Your task to perform on an android device: turn on priority inbox in the gmail app Image 0: 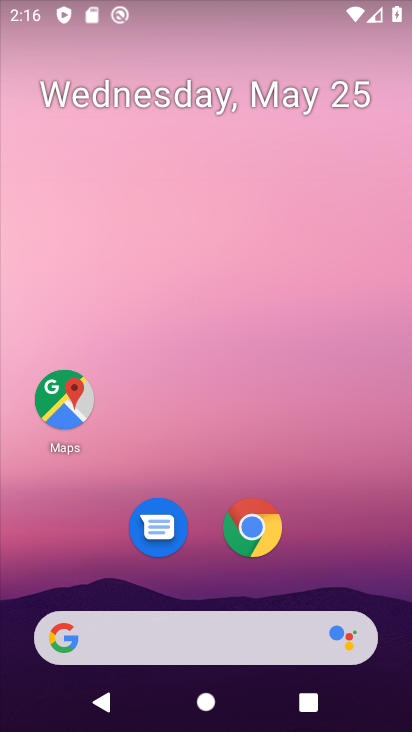
Step 0: drag from (210, 506) to (239, 101)
Your task to perform on an android device: turn on priority inbox in the gmail app Image 1: 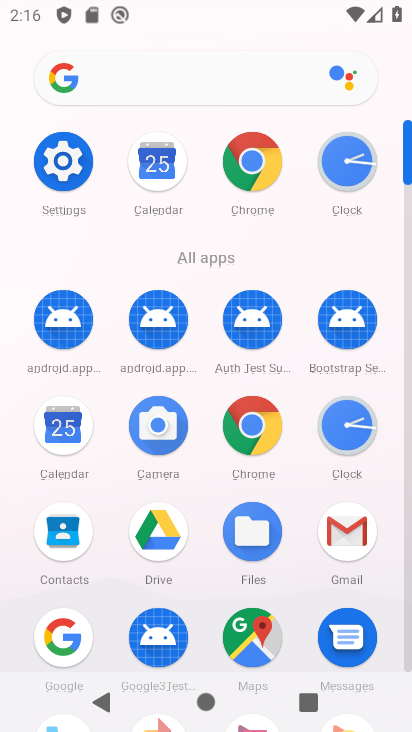
Step 1: click (335, 536)
Your task to perform on an android device: turn on priority inbox in the gmail app Image 2: 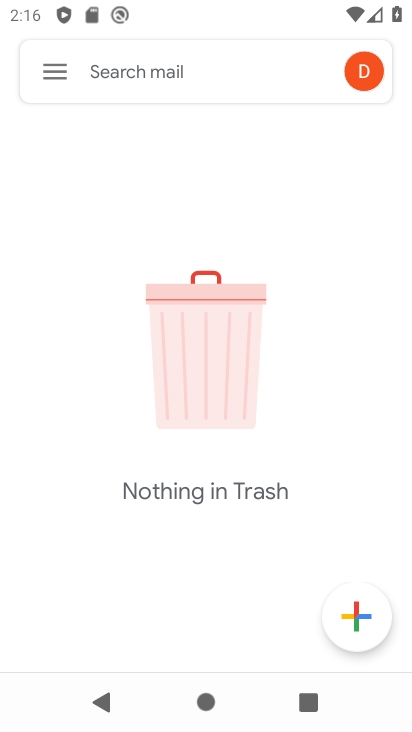
Step 2: click (42, 66)
Your task to perform on an android device: turn on priority inbox in the gmail app Image 3: 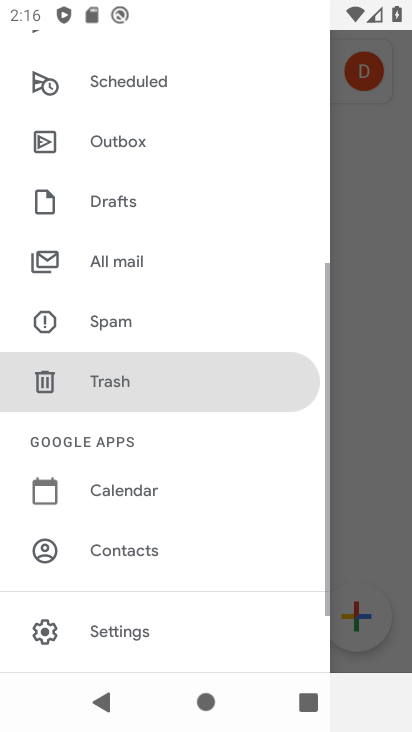
Step 3: click (118, 613)
Your task to perform on an android device: turn on priority inbox in the gmail app Image 4: 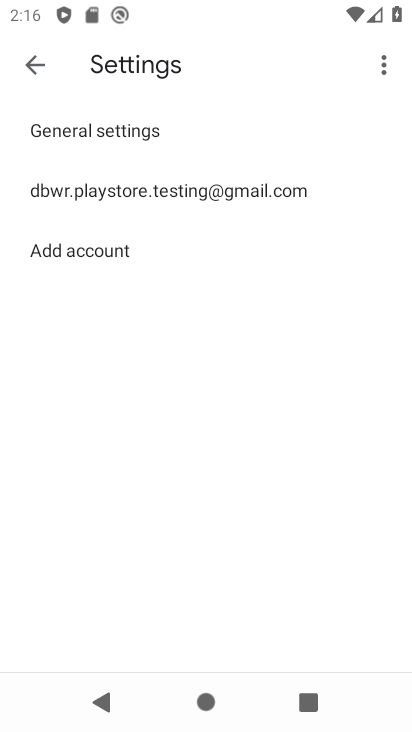
Step 4: click (129, 192)
Your task to perform on an android device: turn on priority inbox in the gmail app Image 5: 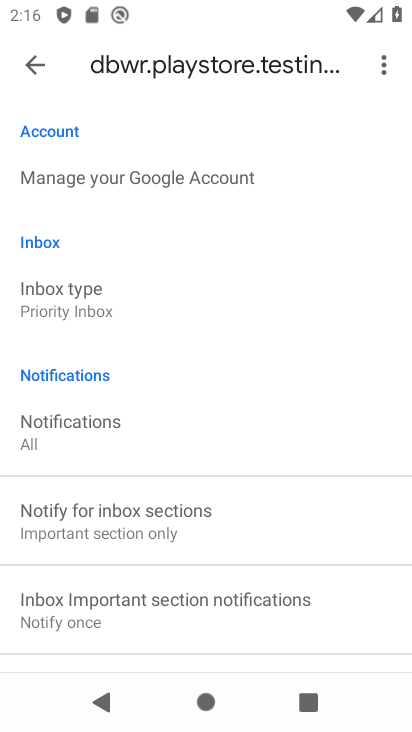
Step 5: click (91, 292)
Your task to perform on an android device: turn on priority inbox in the gmail app Image 6: 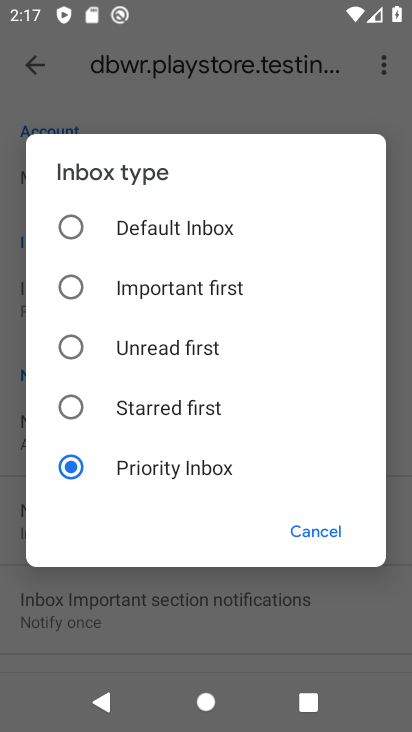
Step 6: click (74, 463)
Your task to perform on an android device: turn on priority inbox in the gmail app Image 7: 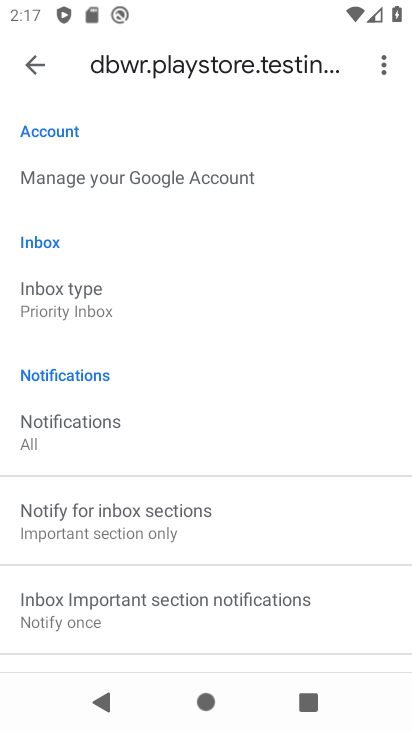
Step 7: task complete